Your task to perform on an android device: open wifi settings Image 0: 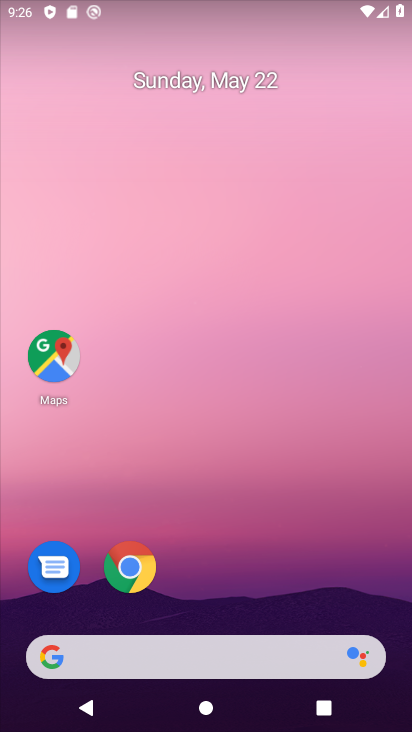
Step 0: drag from (316, 579) to (316, 225)
Your task to perform on an android device: open wifi settings Image 1: 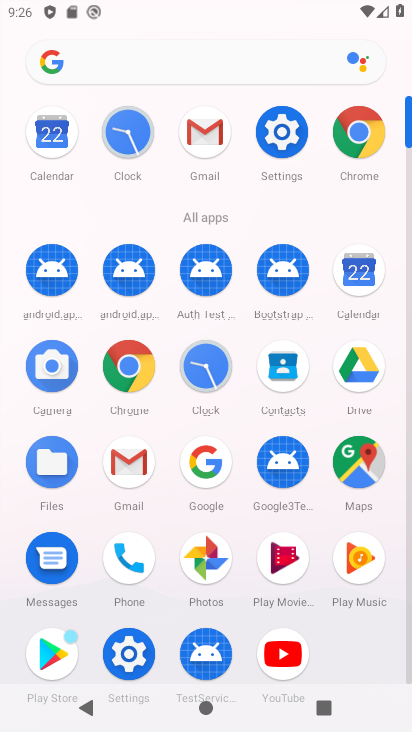
Step 1: click (289, 133)
Your task to perform on an android device: open wifi settings Image 2: 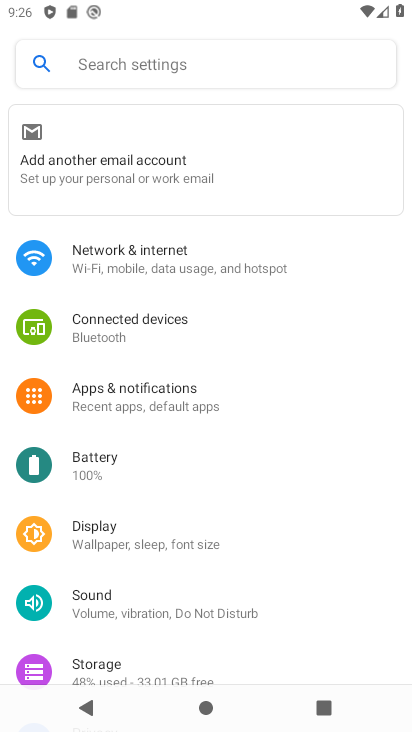
Step 2: click (141, 259)
Your task to perform on an android device: open wifi settings Image 3: 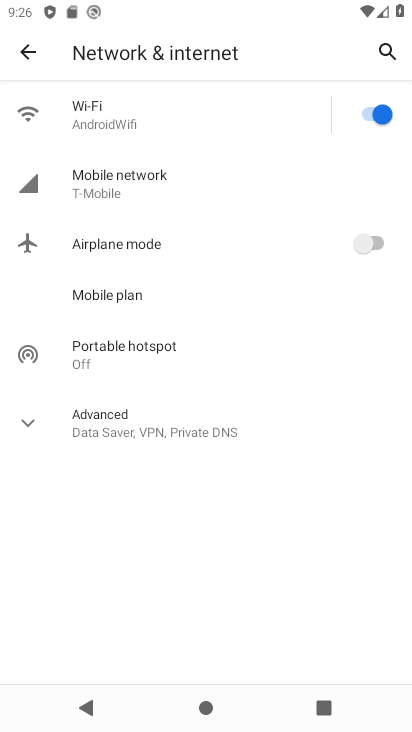
Step 3: click (123, 120)
Your task to perform on an android device: open wifi settings Image 4: 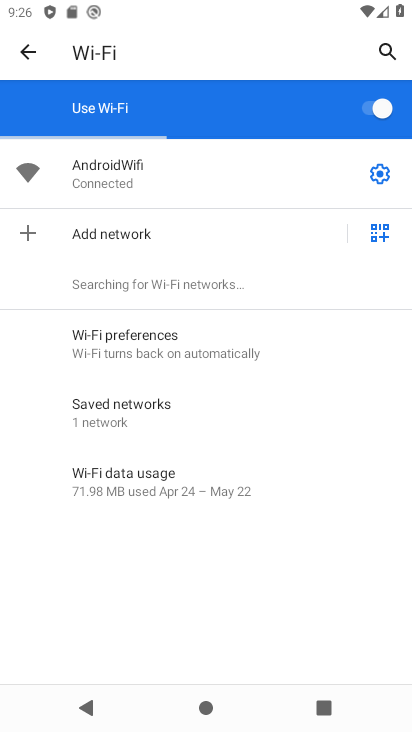
Step 4: task complete